Your task to perform on an android device: manage bookmarks in the chrome app Image 0: 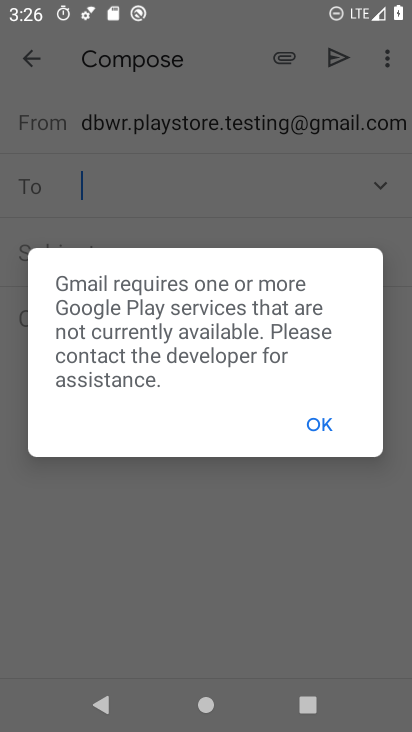
Step 0: press home button
Your task to perform on an android device: manage bookmarks in the chrome app Image 1: 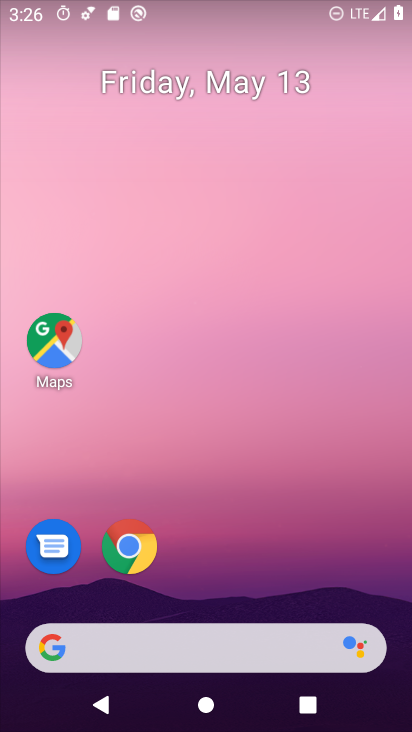
Step 1: drag from (227, 480) to (271, 167)
Your task to perform on an android device: manage bookmarks in the chrome app Image 2: 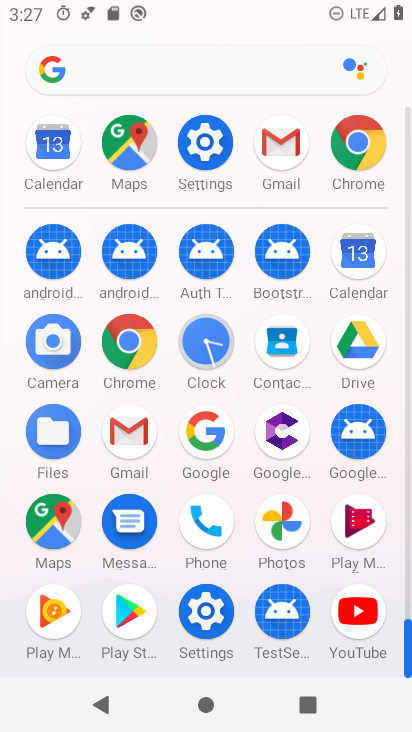
Step 2: click (135, 367)
Your task to perform on an android device: manage bookmarks in the chrome app Image 3: 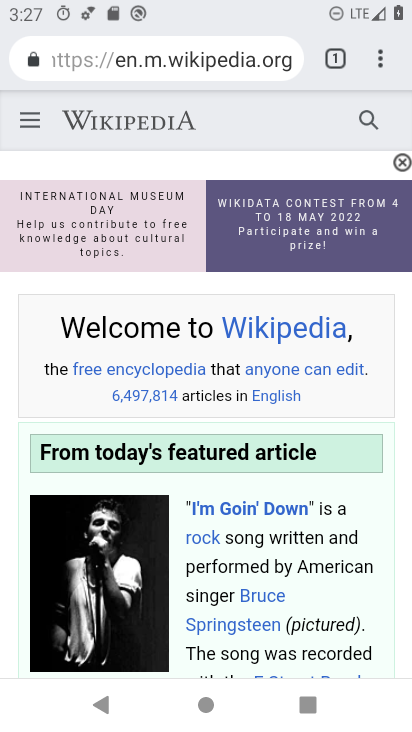
Step 3: click (381, 62)
Your task to perform on an android device: manage bookmarks in the chrome app Image 4: 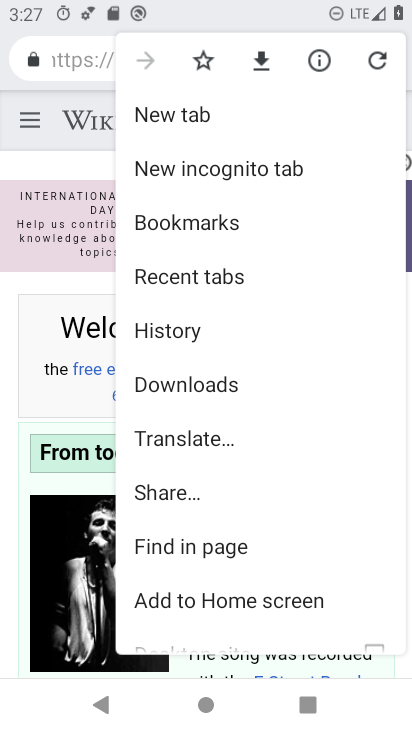
Step 4: click (201, 237)
Your task to perform on an android device: manage bookmarks in the chrome app Image 5: 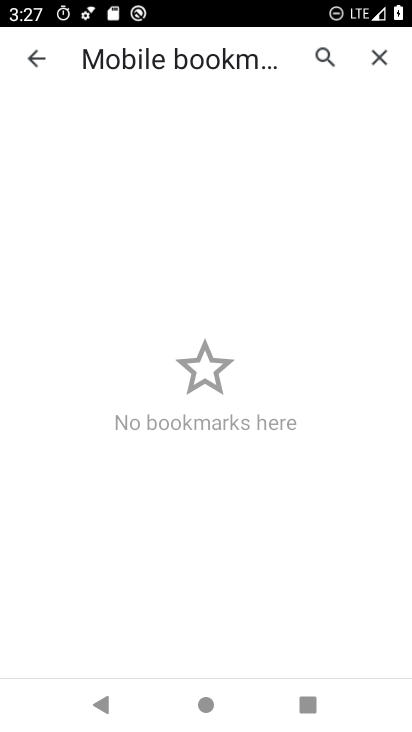
Step 5: task complete